Your task to perform on an android device: Check the news Image 0: 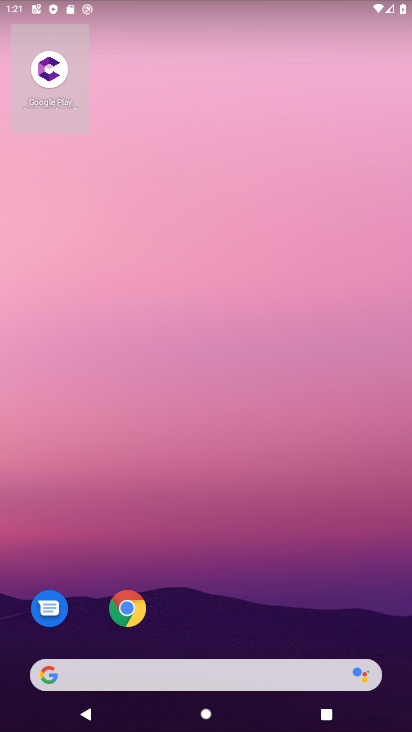
Step 0: click (211, 680)
Your task to perform on an android device: Check the news Image 1: 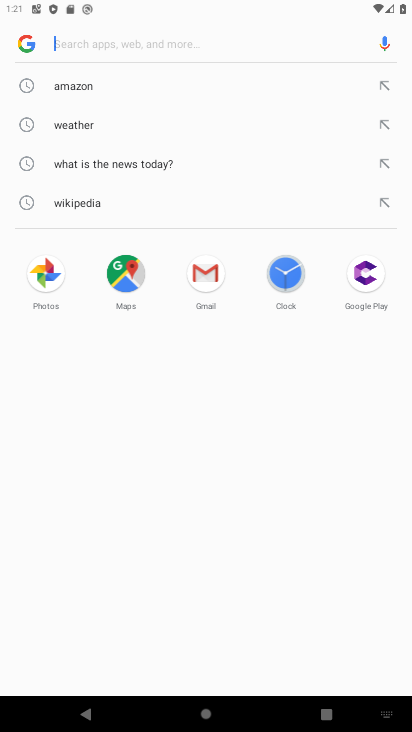
Step 1: type "Check the news"
Your task to perform on an android device: Check the news Image 2: 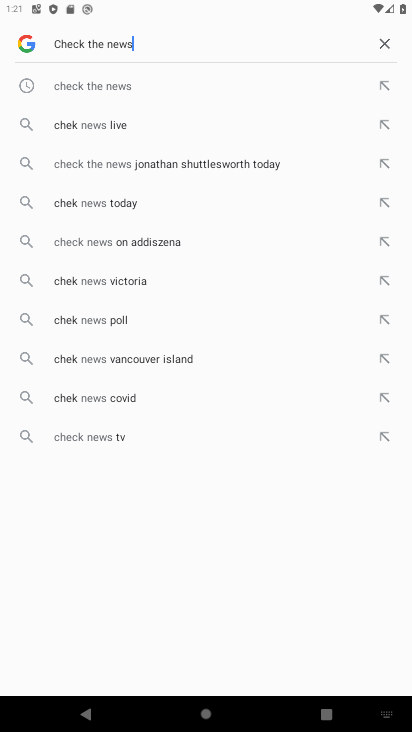
Step 2: press enter
Your task to perform on an android device: Check the news Image 3: 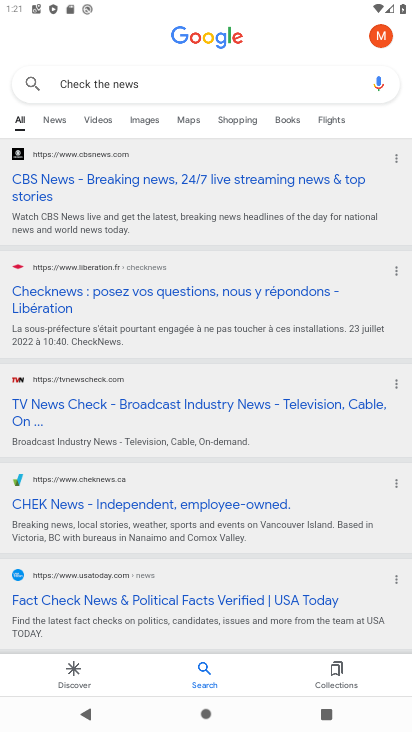
Step 3: task complete